Your task to perform on an android device: change the clock style Image 0: 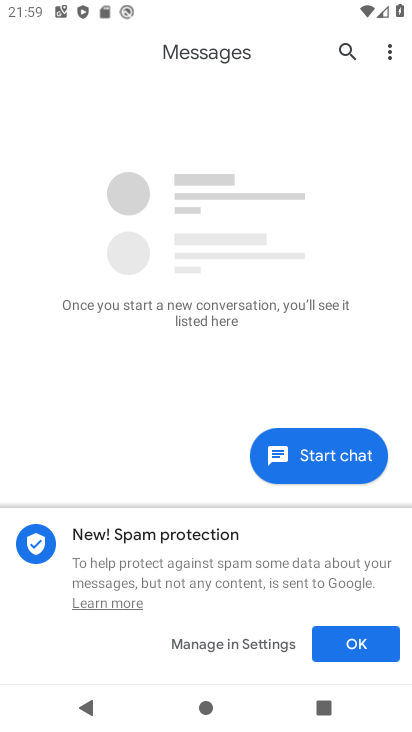
Step 0: press home button
Your task to perform on an android device: change the clock style Image 1: 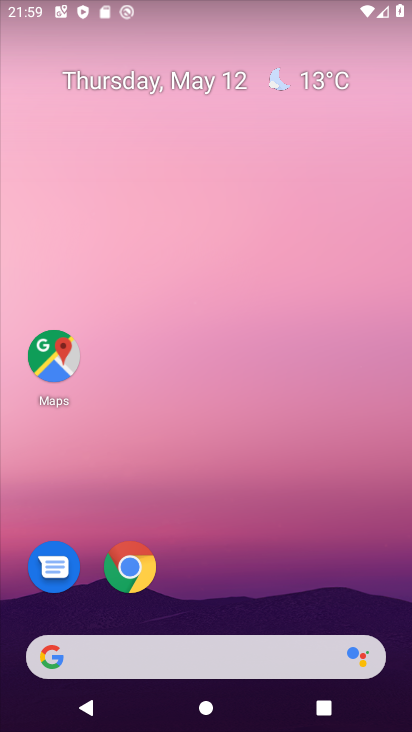
Step 1: drag from (208, 613) to (229, 44)
Your task to perform on an android device: change the clock style Image 2: 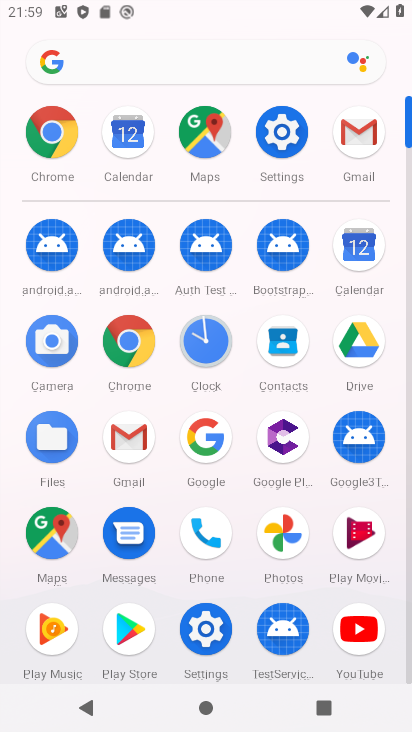
Step 2: click (203, 331)
Your task to perform on an android device: change the clock style Image 3: 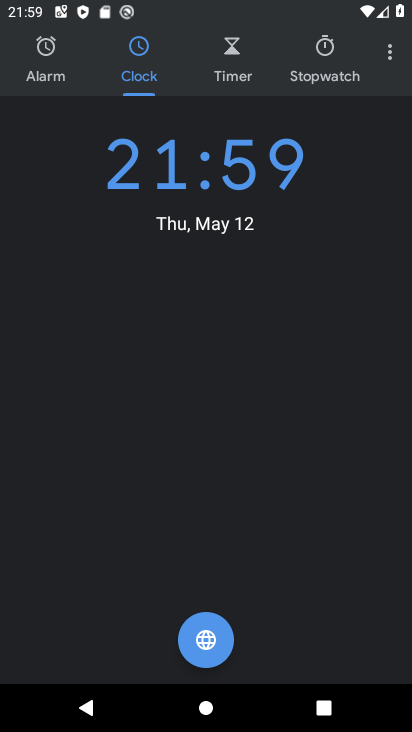
Step 3: click (391, 47)
Your task to perform on an android device: change the clock style Image 4: 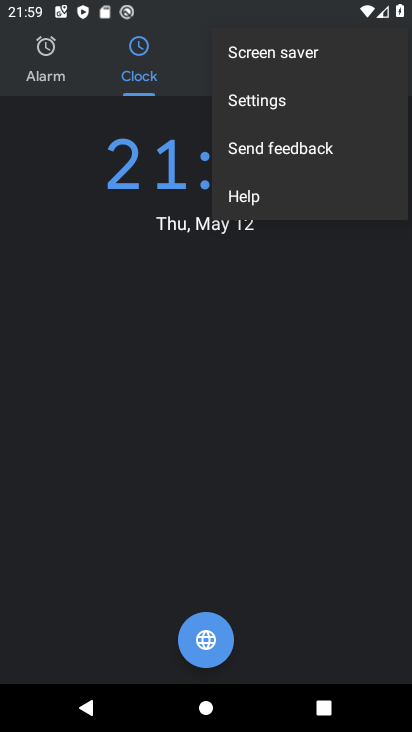
Step 4: click (282, 101)
Your task to perform on an android device: change the clock style Image 5: 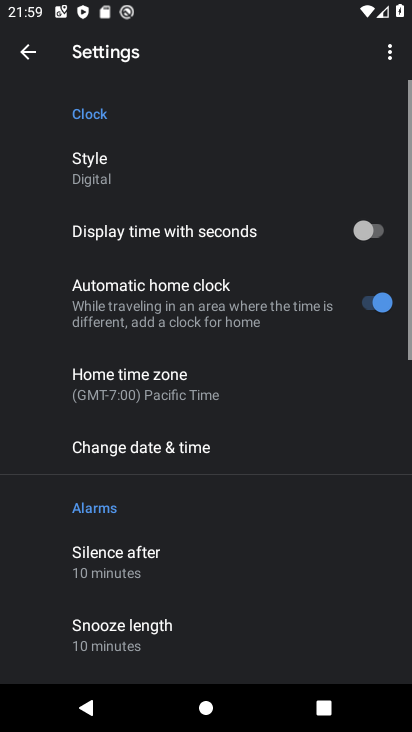
Step 5: click (125, 171)
Your task to perform on an android device: change the clock style Image 6: 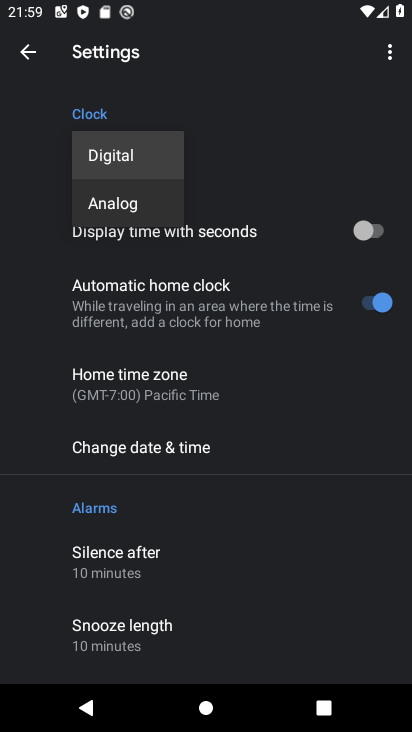
Step 6: click (146, 206)
Your task to perform on an android device: change the clock style Image 7: 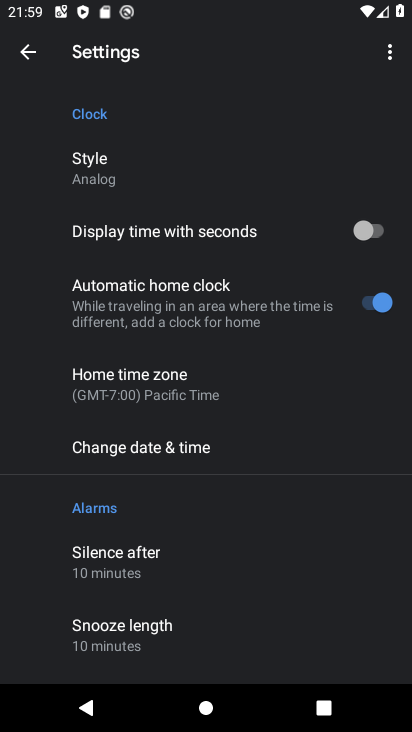
Step 7: task complete